Your task to perform on an android device: Open Youtube and go to the subscriptions tab Image 0: 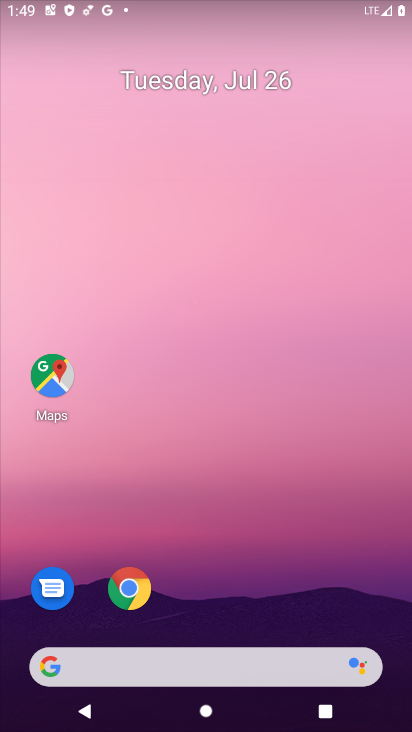
Step 0: drag from (201, 647) to (119, 33)
Your task to perform on an android device: Open Youtube and go to the subscriptions tab Image 1: 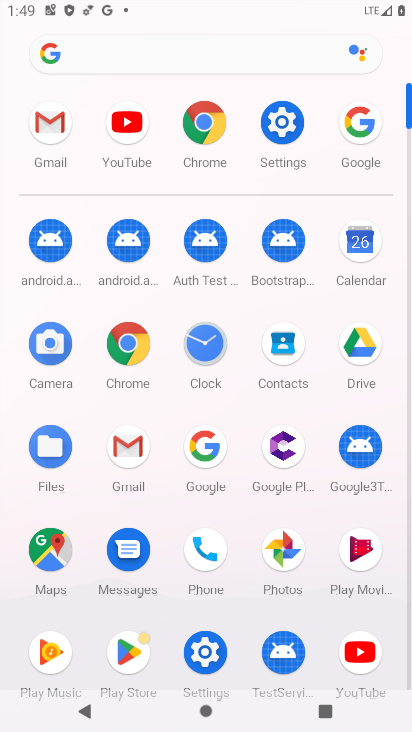
Step 1: click (381, 656)
Your task to perform on an android device: Open Youtube and go to the subscriptions tab Image 2: 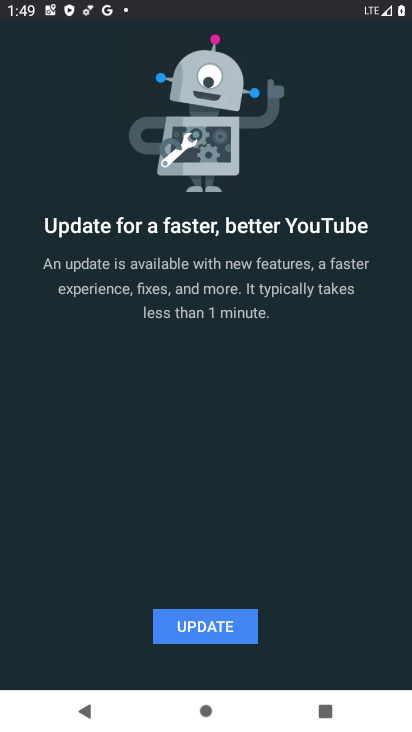
Step 2: click (222, 639)
Your task to perform on an android device: Open Youtube and go to the subscriptions tab Image 3: 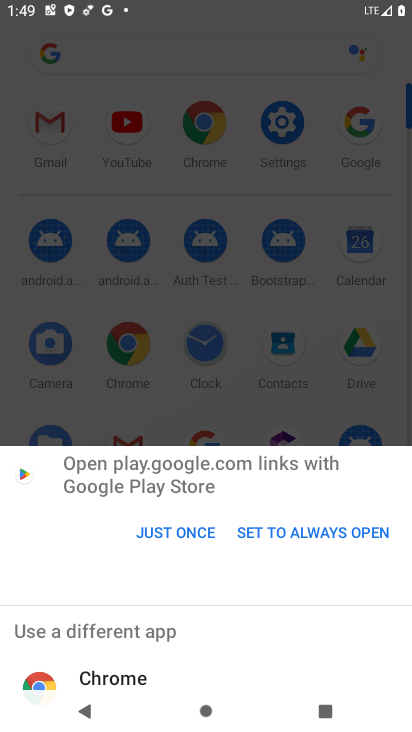
Step 3: click (193, 524)
Your task to perform on an android device: Open Youtube and go to the subscriptions tab Image 4: 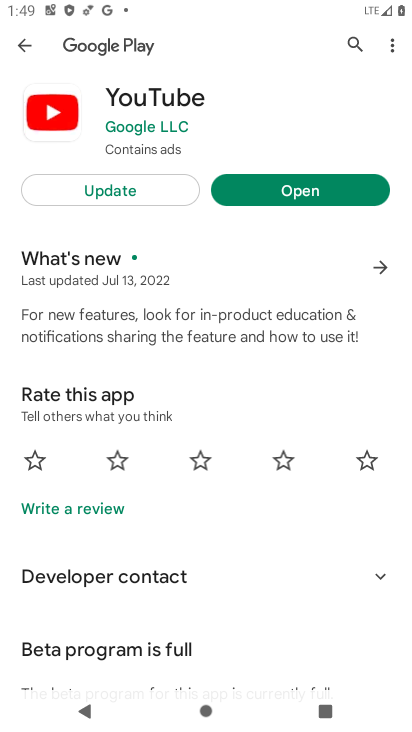
Step 4: click (159, 193)
Your task to perform on an android device: Open Youtube and go to the subscriptions tab Image 5: 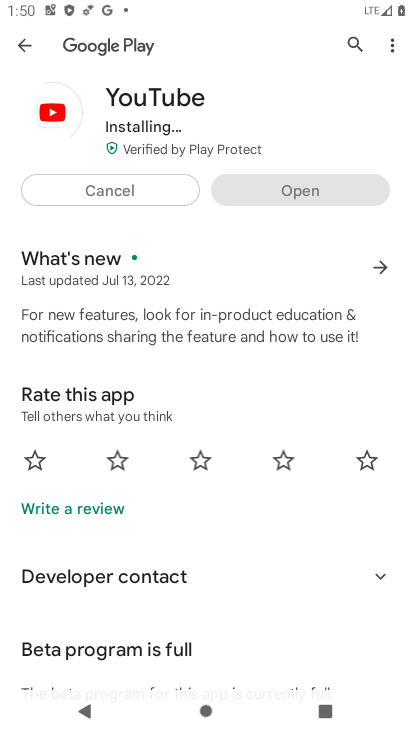
Step 5: task complete